Your task to perform on an android device: find which apps use the phone's location Image 0: 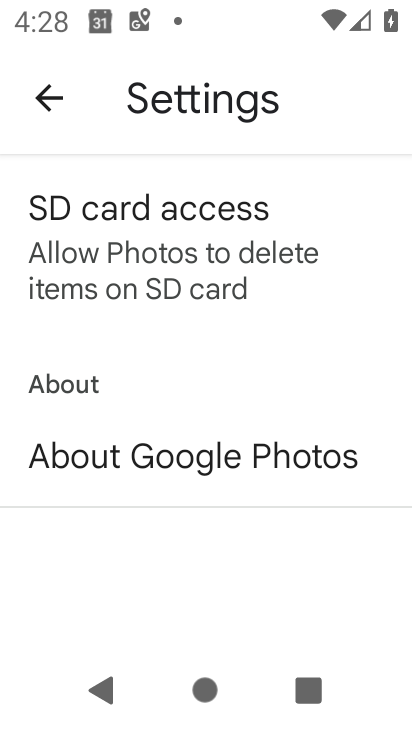
Step 0: press home button
Your task to perform on an android device: find which apps use the phone's location Image 1: 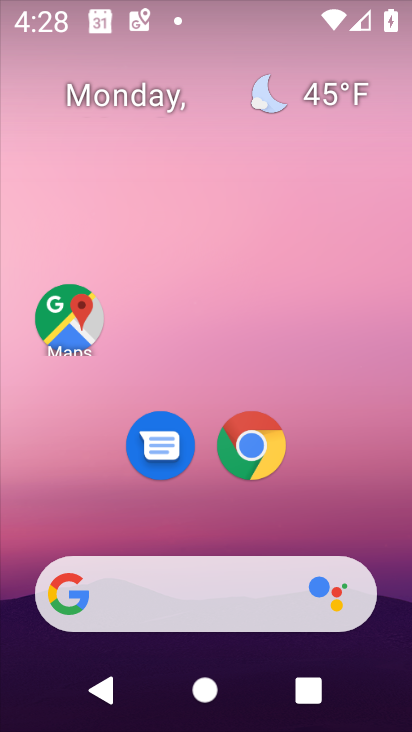
Step 1: drag from (290, 474) to (357, 21)
Your task to perform on an android device: find which apps use the phone's location Image 2: 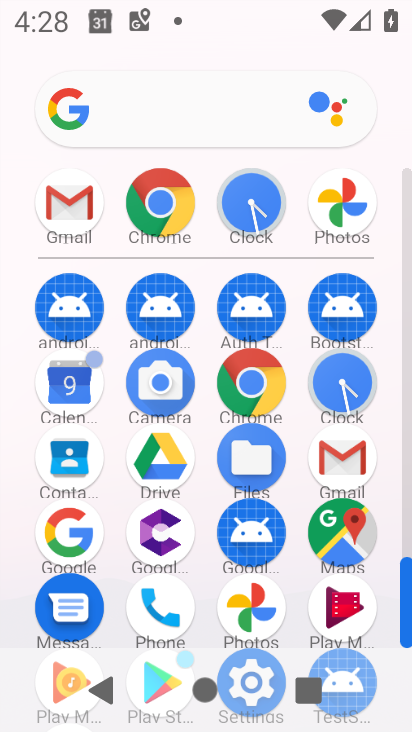
Step 2: drag from (306, 482) to (328, 105)
Your task to perform on an android device: find which apps use the phone's location Image 3: 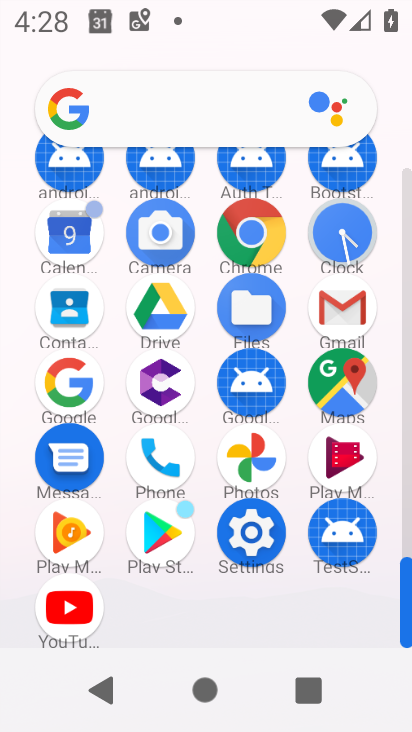
Step 3: click (234, 527)
Your task to perform on an android device: find which apps use the phone's location Image 4: 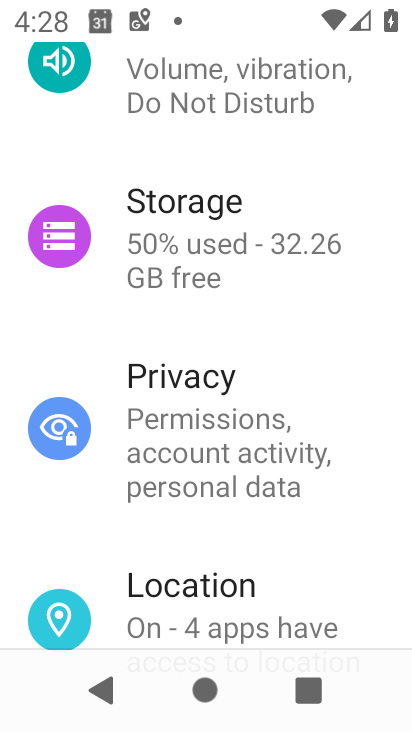
Step 4: drag from (210, 298) to (224, 665)
Your task to perform on an android device: find which apps use the phone's location Image 5: 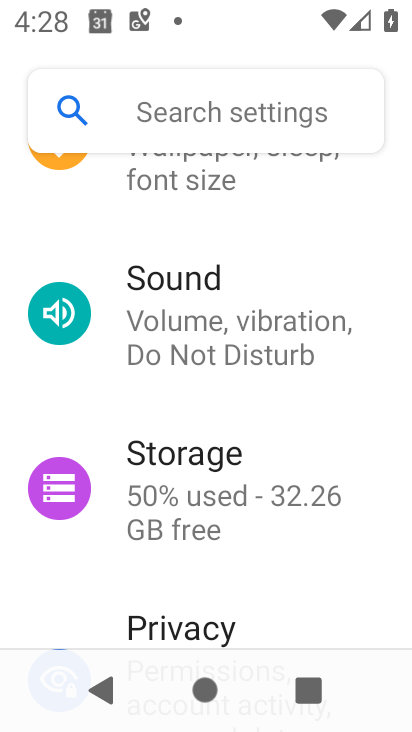
Step 5: drag from (257, 233) to (223, 20)
Your task to perform on an android device: find which apps use the phone's location Image 6: 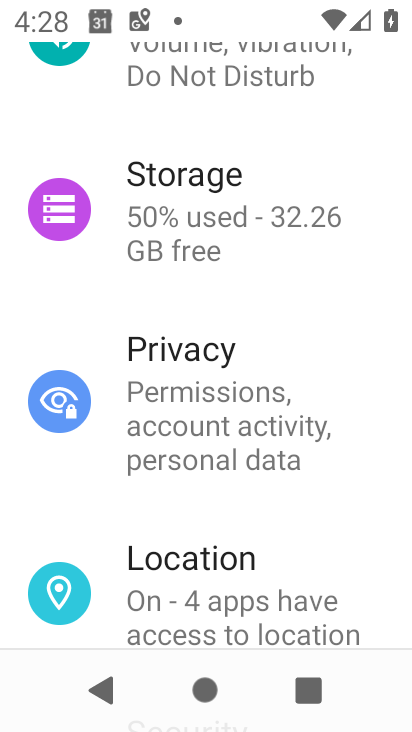
Step 6: click (162, 576)
Your task to perform on an android device: find which apps use the phone's location Image 7: 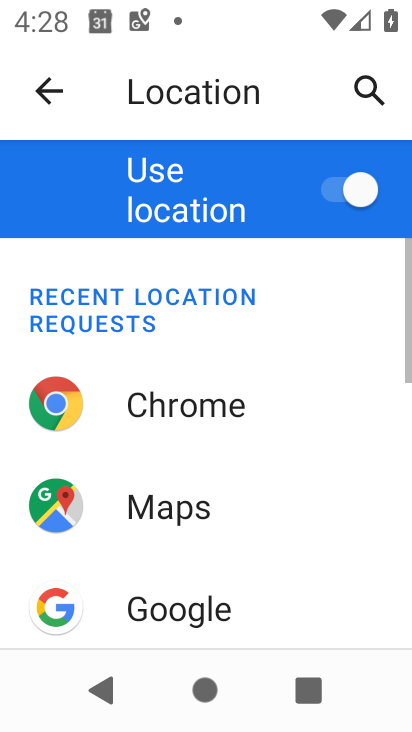
Step 7: drag from (208, 595) to (306, 127)
Your task to perform on an android device: find which apps use the phone's location Image 8: 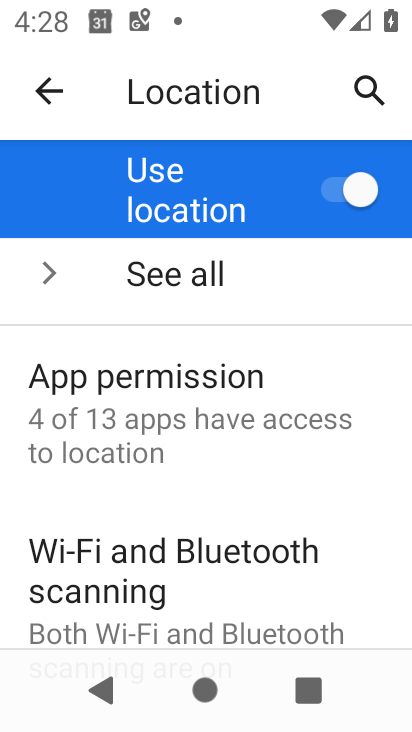
Step 8: click (170, 465)
Your task to perform on an android device: find which apps use the phone's location Image 9: 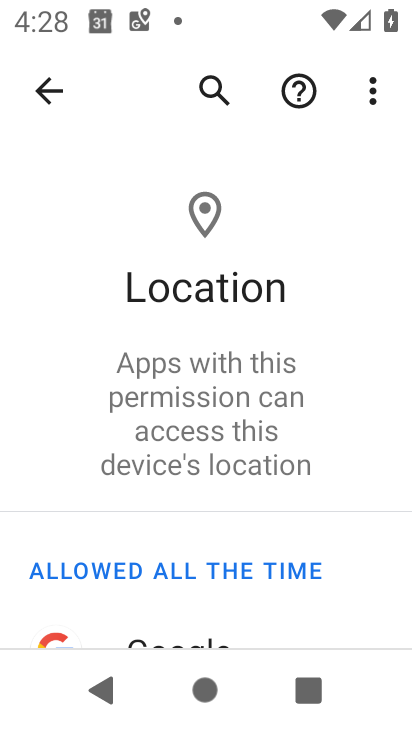
Step 9: task complete